Your task to perform on an android device: Go to display settings Image 0: 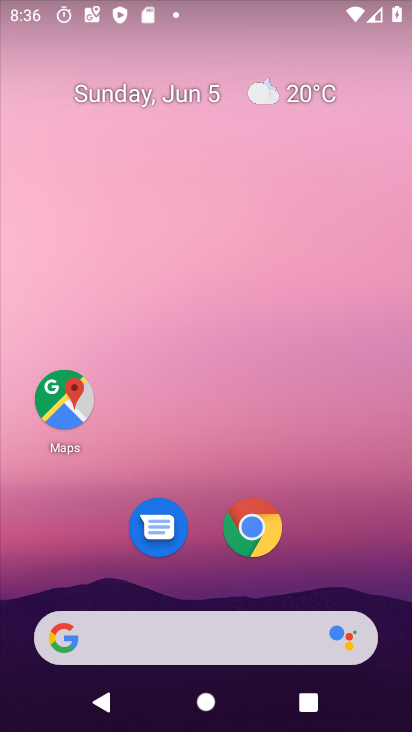
Step 0: drag from (349, 574) to (342, 1)
Your task to perform on an android device: Go to display settings Image 1: 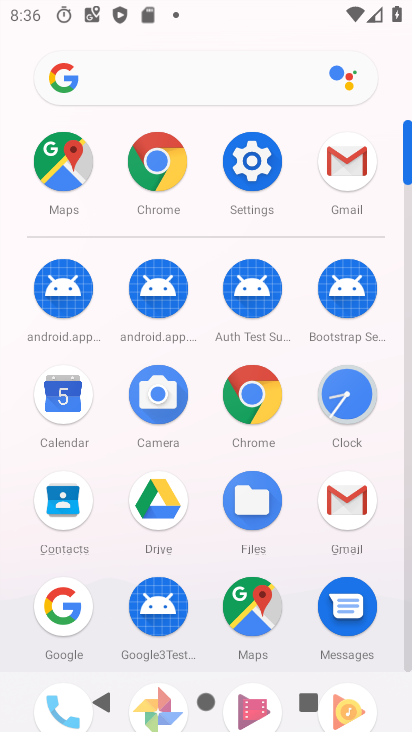
Step 1: click (260, 162)
Your task to perform on an android device: Go to display settings Image 2: 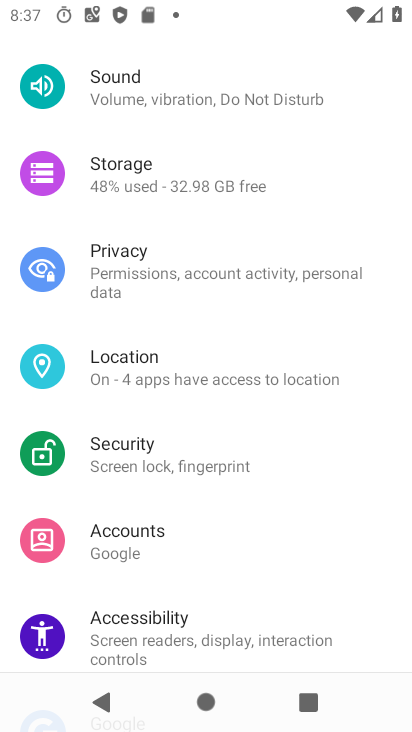
Step 2: drag from (158, 286) to (215, 697)
Your task to perform on an android device: Go to display settings Image 3: 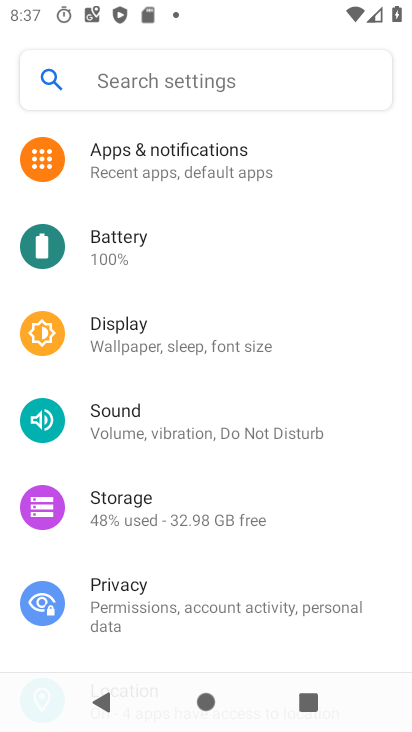
Step 3: click (116, 355)
Your task to perform on an android device: Go to display settings Image 4: 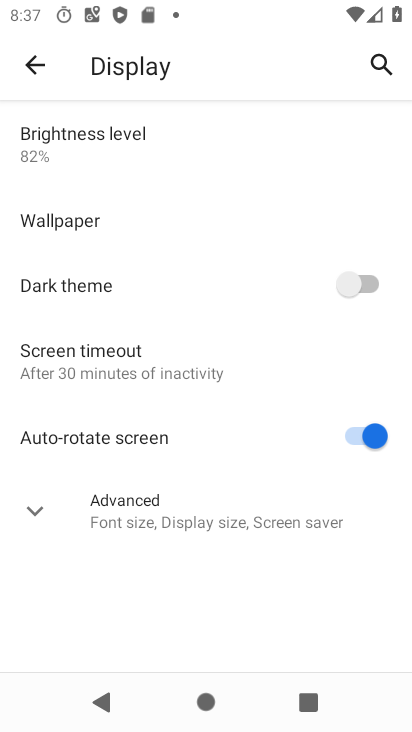
Step 4: task complete